Your task to perform on an android device: turn on javascript in the chrome app Image 0: 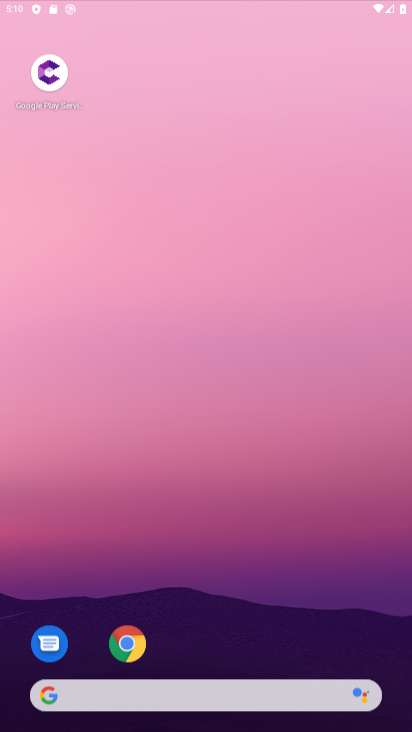
Step 0: press back button
Your task to perform on an android device: turn on javascript in the chrome app Image 1: 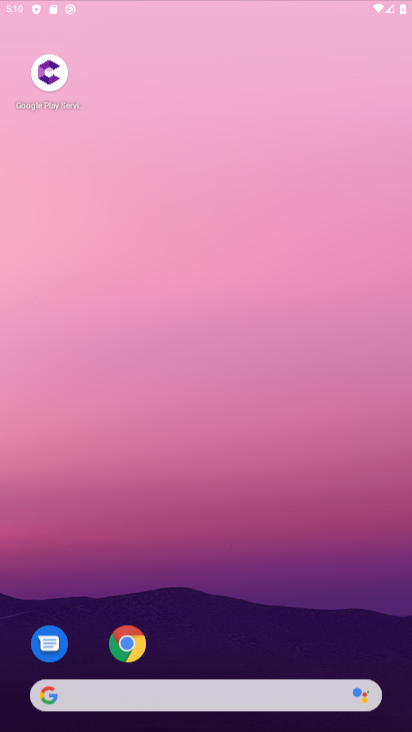
Step 1: click (120, 260)
Your task to perform on an android device: turn on javascript in the chrome app Image 2: 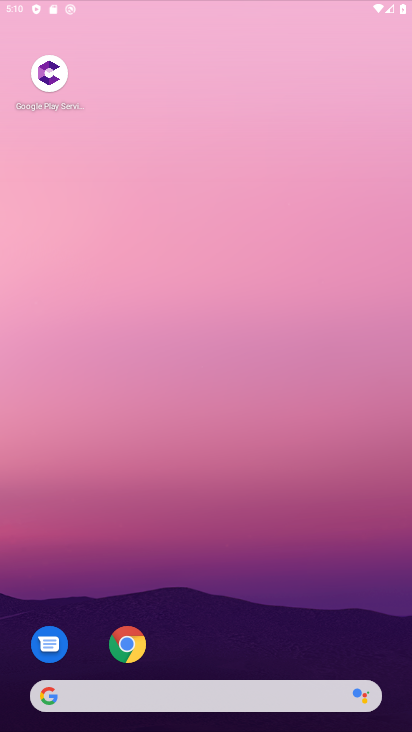
Step 2: drag from (241, 497) to (197, 180)
Your task to perform on an android device: turn on javascript in the chrome app Image 3: 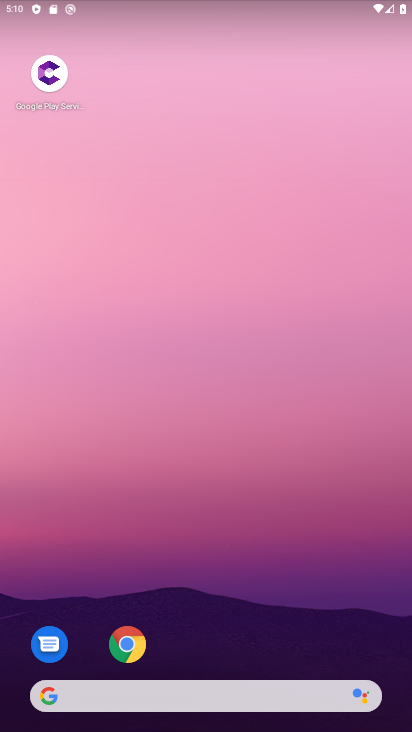
Step 3: drag from (236, 579) to (150, 147)
Your task to perform on an android device: turn on javascript in the chrome app Image 4: 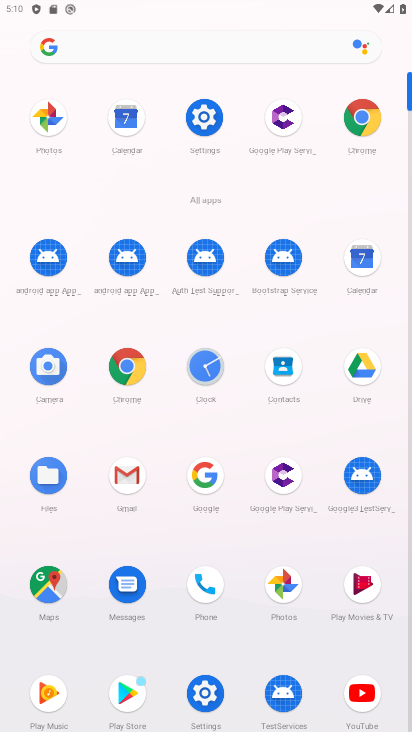
Step 4: click (363, 118)
Your task to perform on an android device: turn on javascript in the chrome app Image 5: 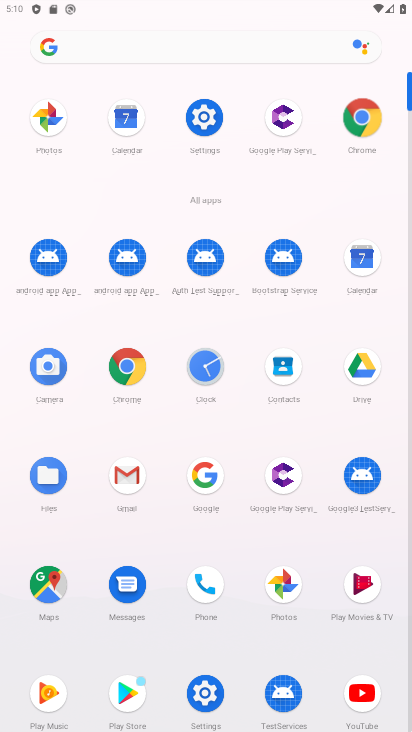
Step 5: click (364, 118)
Your task to perform on an android device: turn on javascript in the chrome app Image 6: 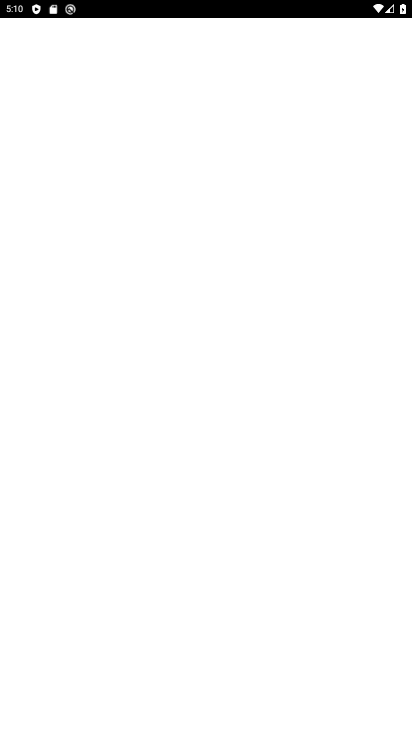
Step 6: click (369, 117)
Your task to perform on an android device: turn on javascript in the chrome app Image 7: 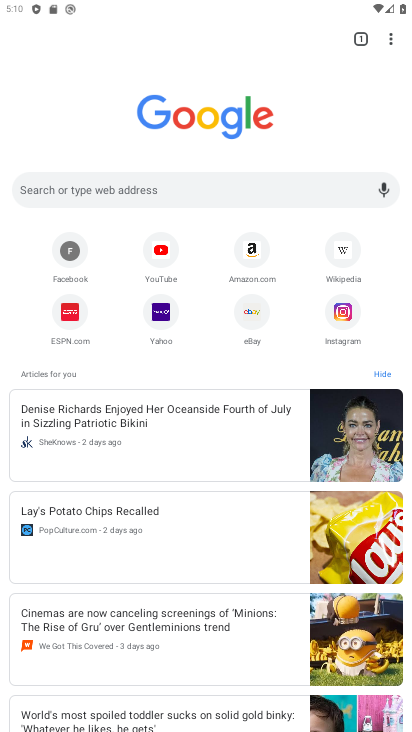
Step 7: drag from (388, 36) to (307, 495)
Your task to perform on an android device: turn on javascript in the chrome app Image 8: 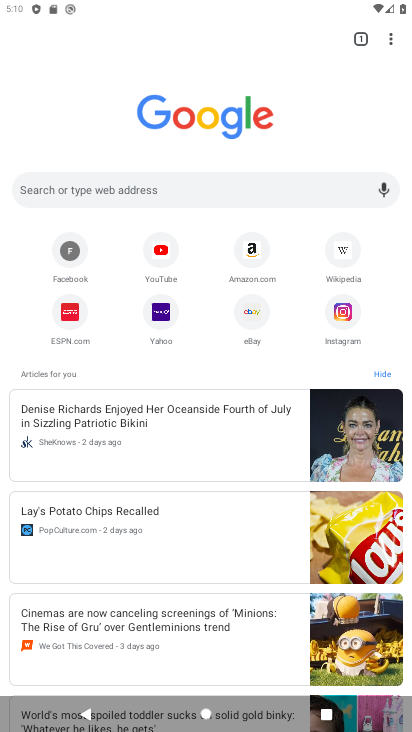
Step 8: drag from (388, 33) to (254, 335)
Your task to perform on an android device: turn on javascript in the chrome app Image 9: 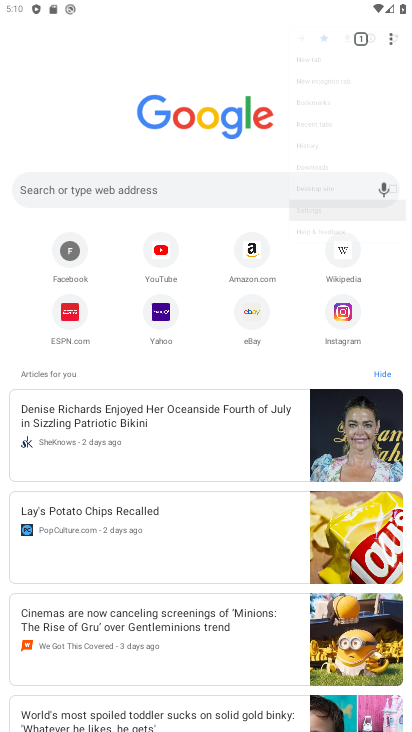
Step 9: click (254, 335)
Your task to perform on an android device: turn on javascript in the chrome app Image 10: 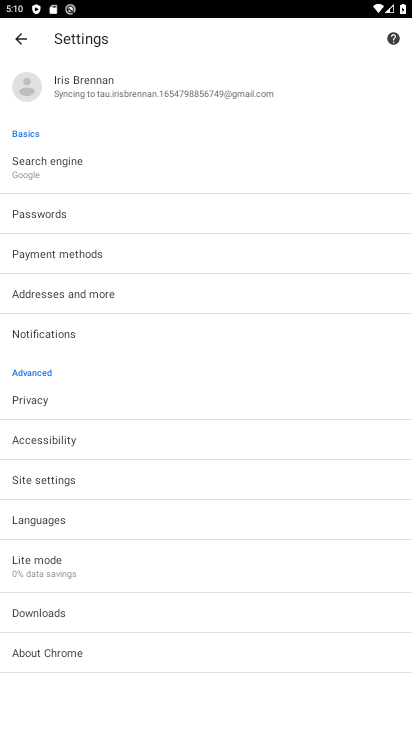
Step 10: drag from (142, 437) to (184, 219)
Your task to perform on an android device: turn on javascript in the chrome app Image 11: 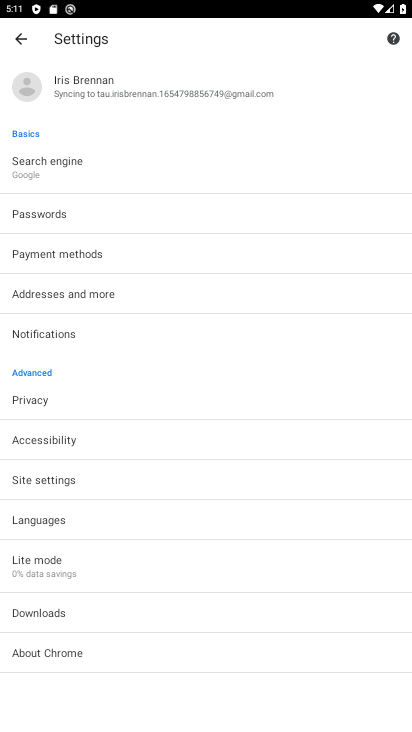
Step 11: drag from (131, 646) to (103, 312)
Your task to perform on an android device: turn on javascript in the chrome app Image 12: 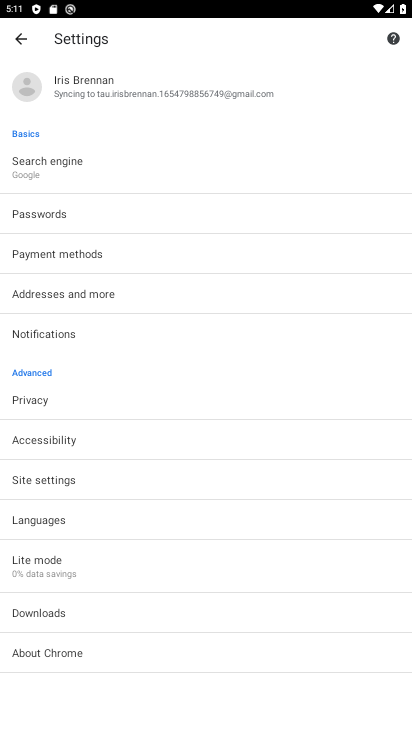
Step 12: drag from (108, 495) to (90, 264)
Your task to perform on an android device: turn on javascript in the chrome app Image 13: 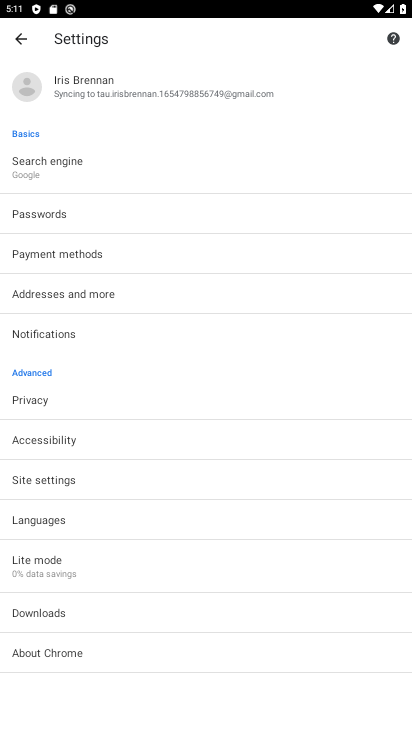
Step 13: click (46, 472)
Your task to perform on an android device: turn on javascript in the chrome app Image 14: 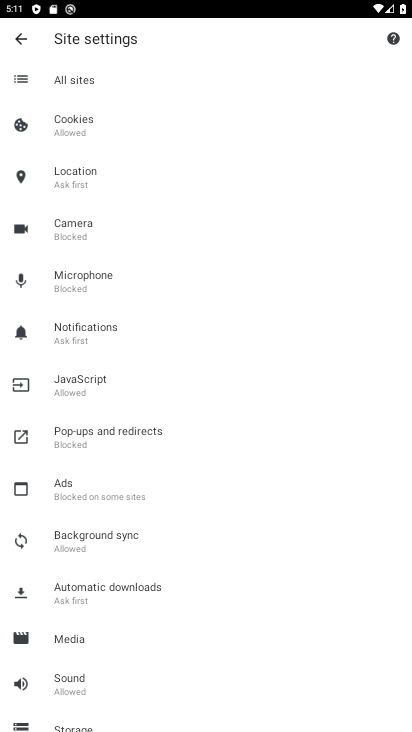
Step 14: click (75, 383)
Your task to perform on an android device: turn on javascript in the chrome app Image 15: 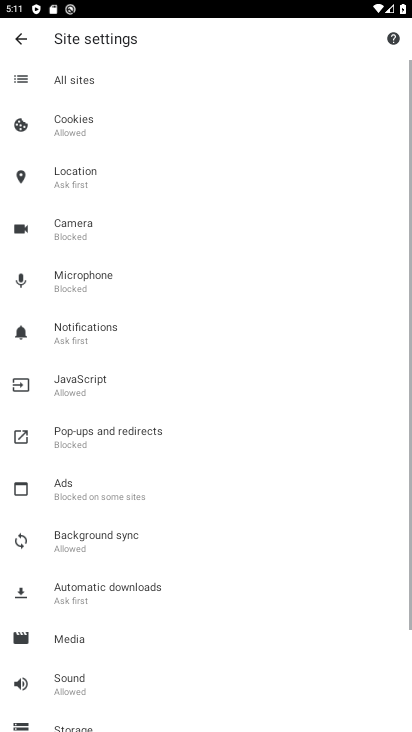
Step 15: click (75, 383)
Your task to perform on an android device: turn on javascript in the chrome app Image 16: 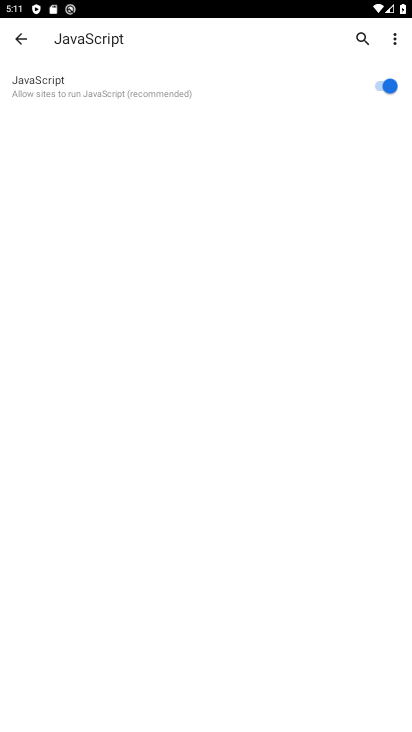
Step 16: task complete